Your task to perform on an android device: Do I have any events today? Image 0: 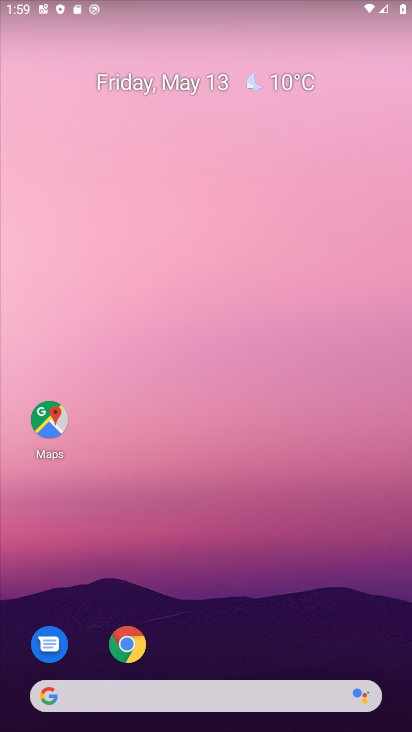
Step 0: drag from (221, 672) to (224, 80)
Your task to perform on an android device: Do I have any events today? Image 1: 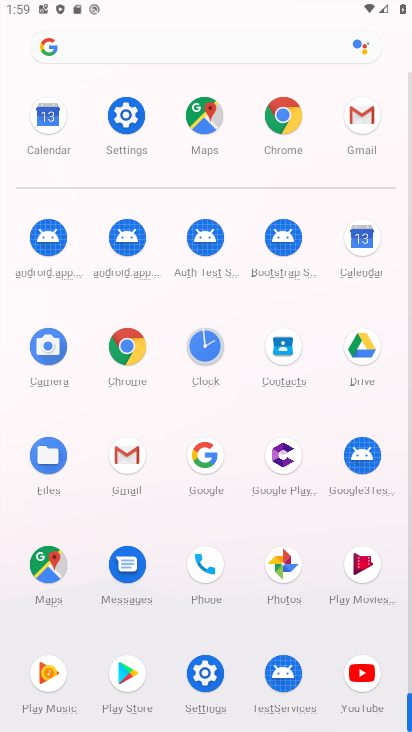
Step 1: click (368, 258)
Your task to perform on an android device: Do I have any events today? Image 2: 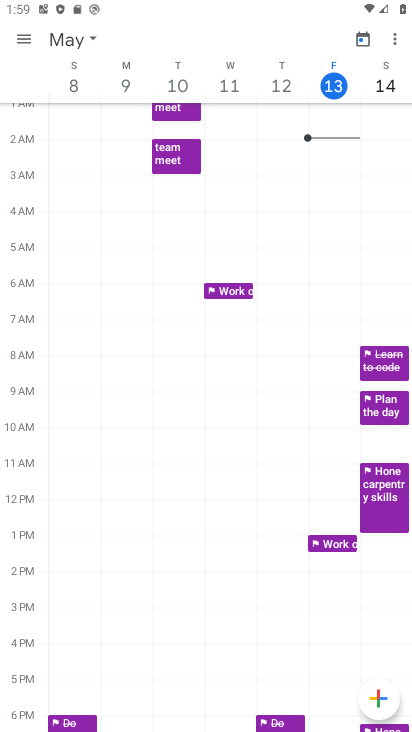
Step 2: click (326, 82)
Your task to perform on an android device: Do I have any events today? Image 3: 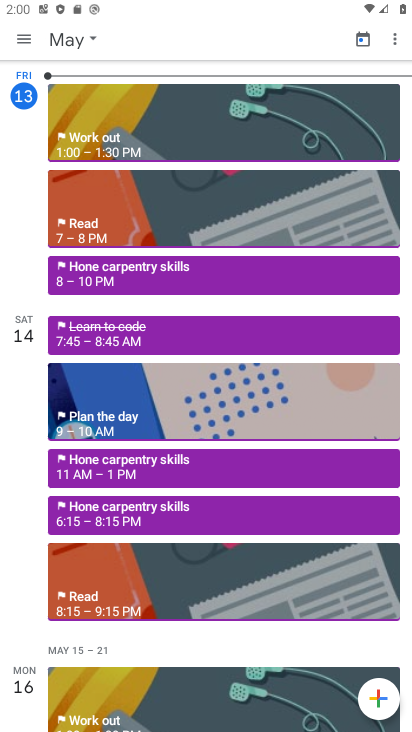
Step 3: task complete